Your task to perform on an android device: empty trash in the gmail app Image 0: 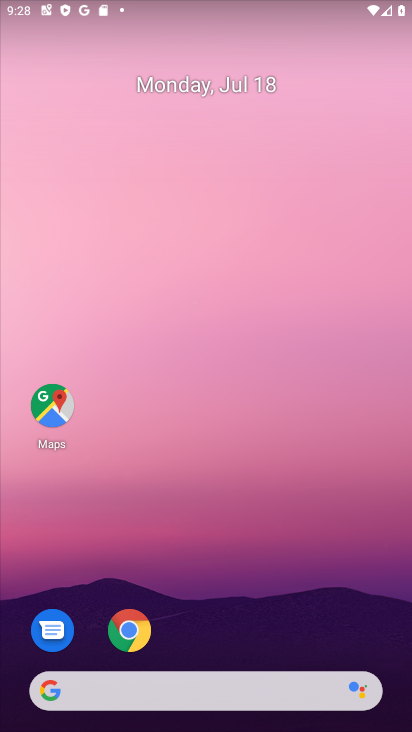
Step 0: drag from (333, 611) to (209, 0)
Your task to perform on an android device: empty trash in the gmail app Image 1: 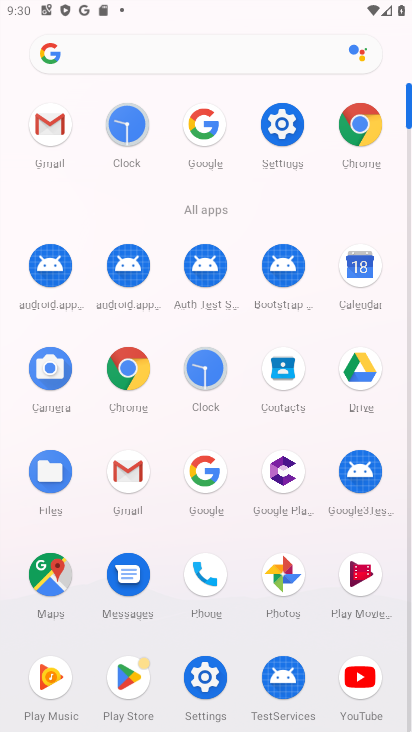
Step 1: click (148, 465)
Your task to perform on an android device: empty trash in the gmail app Image 2: 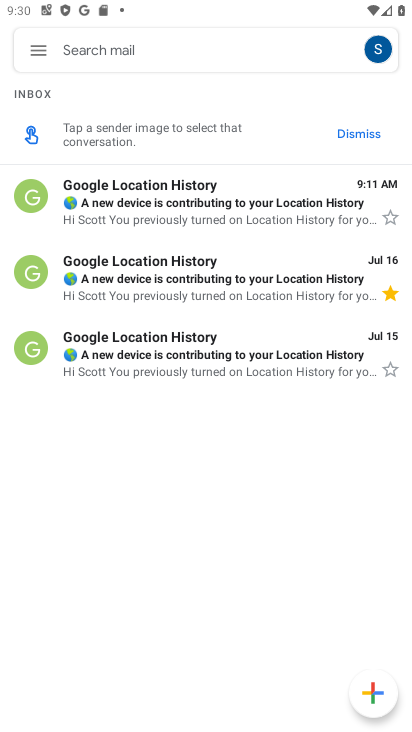
Step 2: click (31, 50)
Your task to perform on an android device: empty trash in the gmail app Image 3: 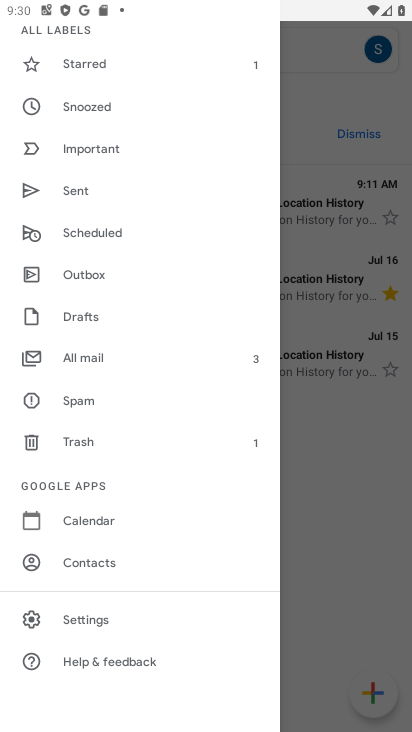
Step 3: click (68, 453)
Your task to perform on an android device: empty trash in the gmail app Image 4: 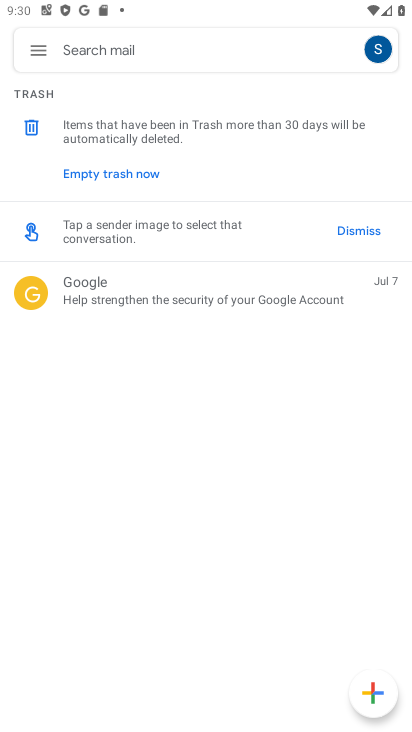
Step 4: click (103, 168)
Your task to perform on an android device: empty trash in the gmail app Image 5: 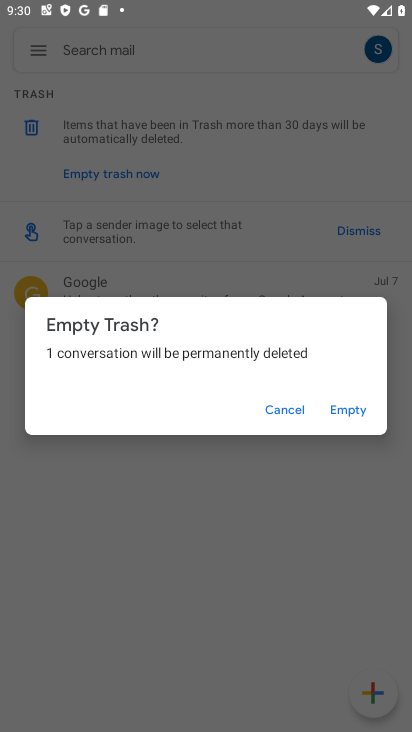
Step 5: click (355, 415)
Your task to perform on an android device: empty trash in the gmail app Image 6: 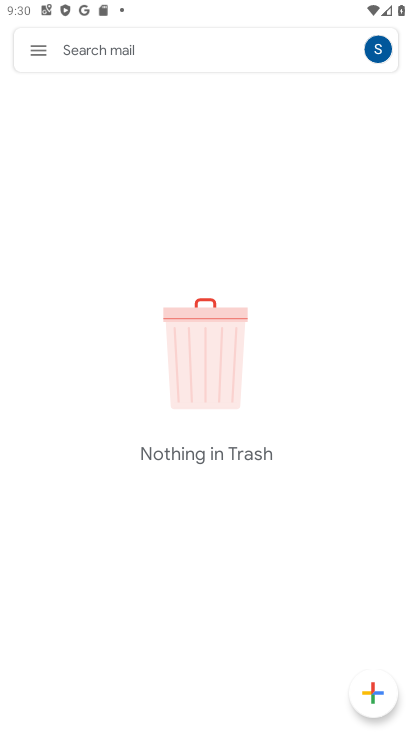
Step 6: task complete